Your task to perform on an android device: toggle notification dots Image 0: 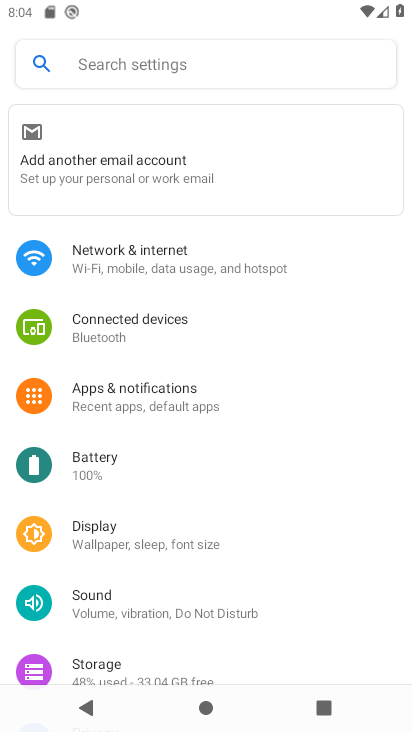
Step 0: click (180, 395)
Your task to perform on an android device: toggle notification dots Image 1: 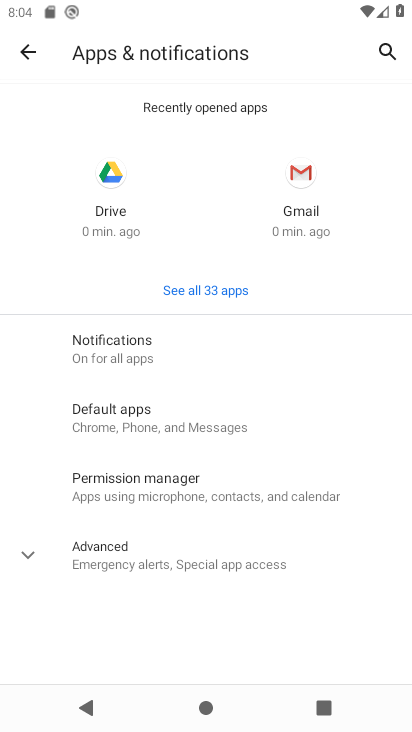
Step 1: click (164, 371)
Your task to perform on an android device: toggle notification dots Image 2: 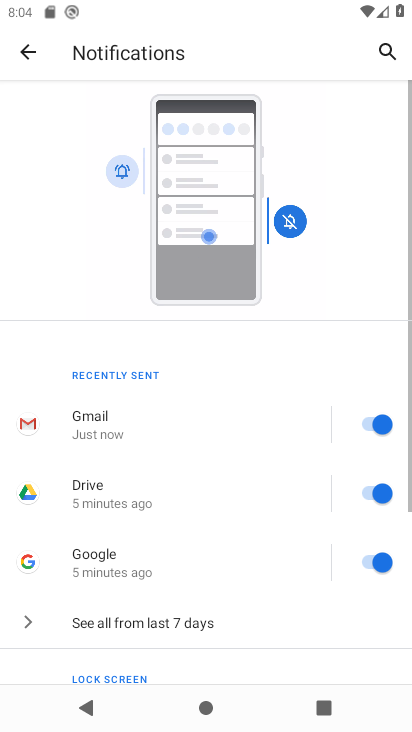
Step 2: drag from (215, 615) to (256, 226)
Your task to perform on an android device: toggle notification dots Image 3: 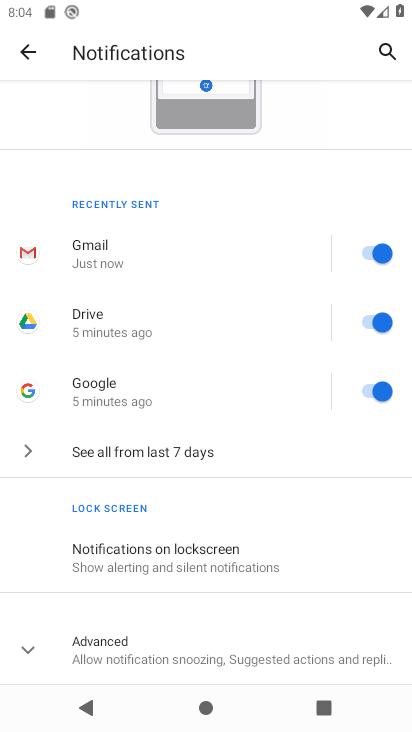
Step 3: click (184, 638)
Your task to perform on an android device: toggle notification dots Image 4: 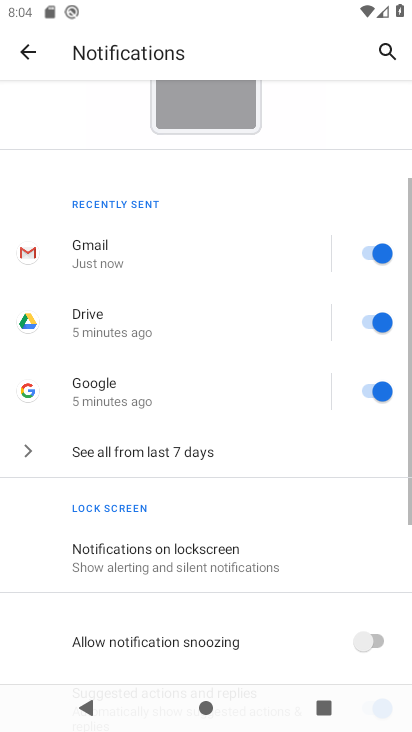
Step 4: drag from (196, 616) to (228, 254)
Your task to perform on an android device: toggle notification dots Image 5: 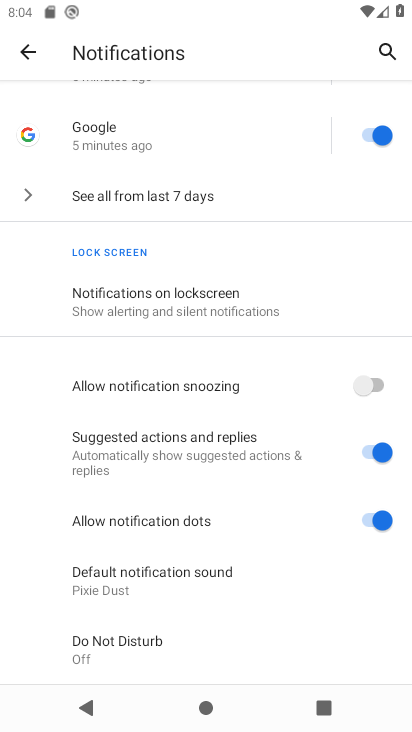
Step 5: click (374, 523)
Your task to perform on an android device: toggle notification dots Image 6: 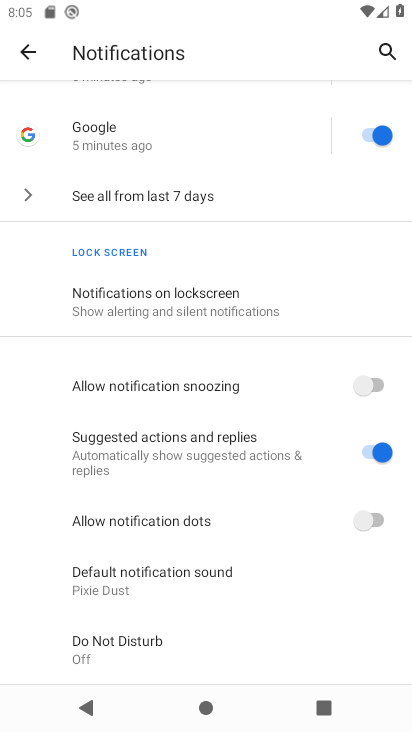
Step 6: task complete